Your task to perform on an android device: Open maps Image 0: 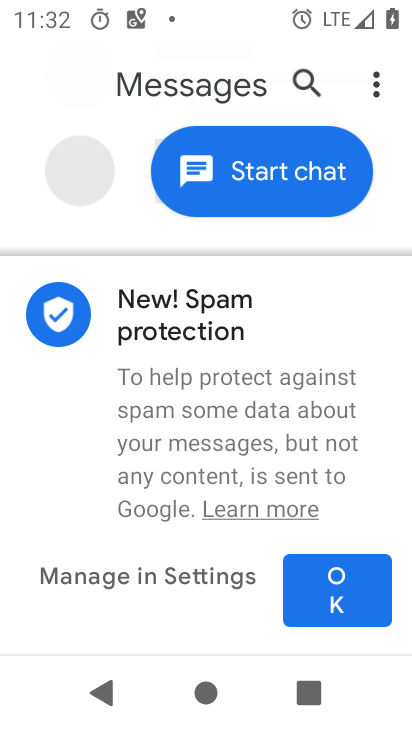
Step 0: press back button
Your task to perform on an android device: Open maps Image 1: 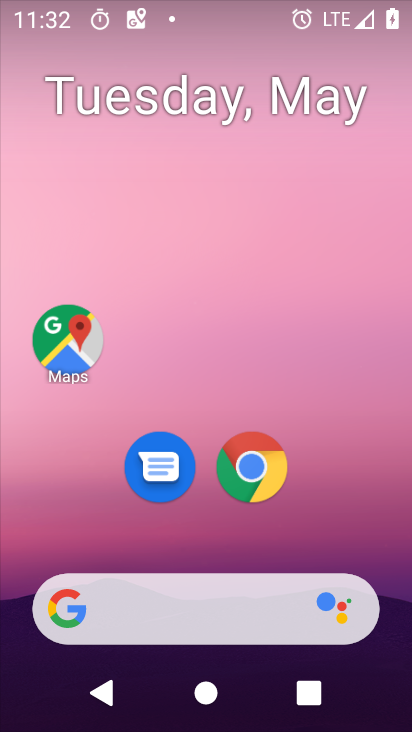
Step 1: drag from (364, 545) to (285, 43)
Your task to perform on an android device: Open maps Image 2: 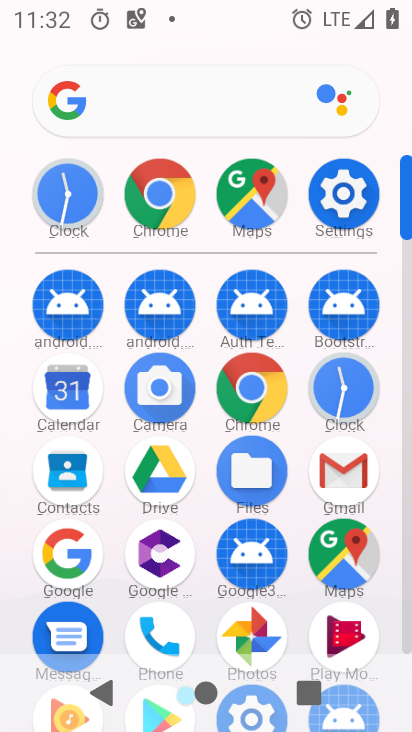
Step 2: drag from (8, 544) to (3, 256)
Your task to perform on an android device: Open maps Image 3: 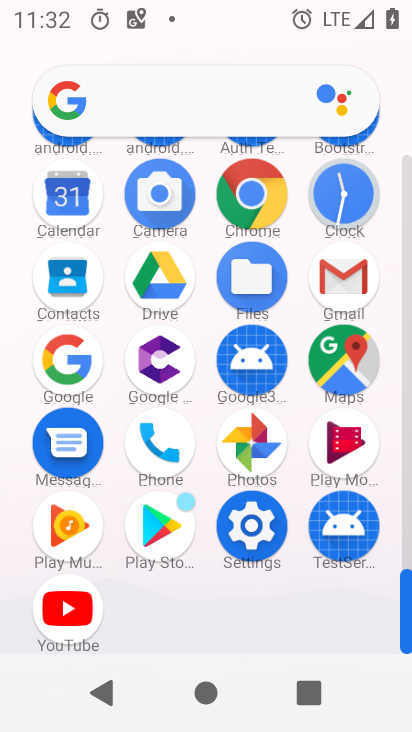
Step 3: click (347, 356)
Your task to perform on an android device: Open maps Image 4: 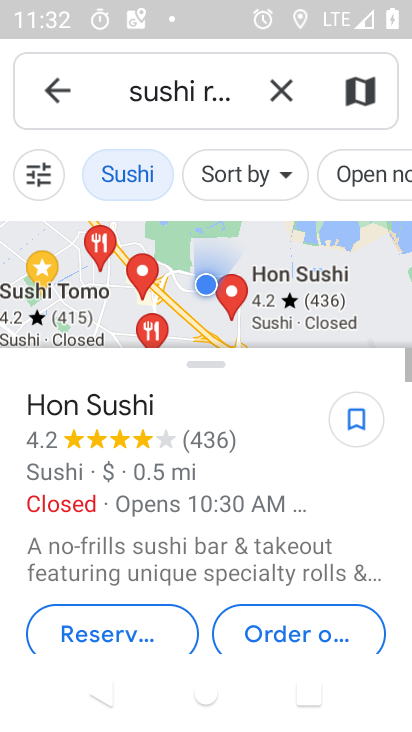
Step 4: click (286, 84)
Your task to perform on an android device: Open maps Image 5: 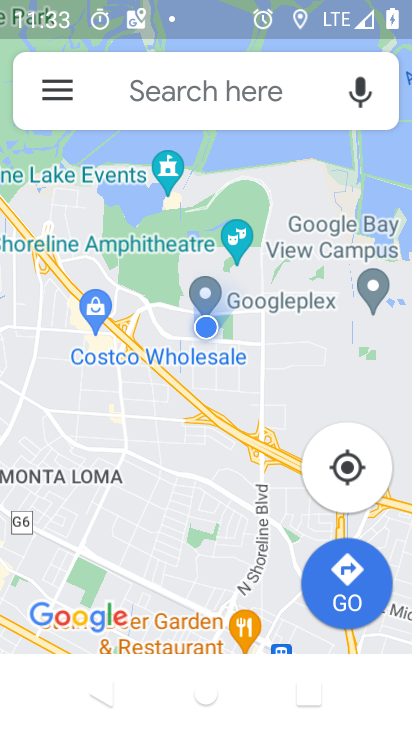
Step 5: task complete